Your task to perform on an android device: Open Amazon Image 0: 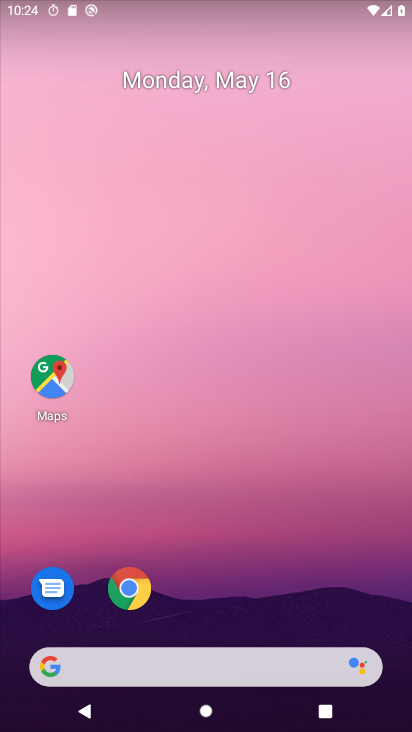
Step 0: click (133, 585)
Your task to perform on an android device: Open Amazon Image 1: 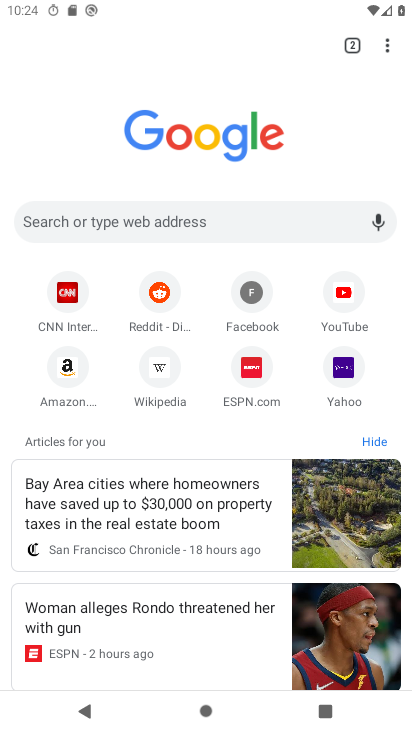
Step 1: click (59, 368)
Your task to perform on an android device: Open Amazon Image 2: 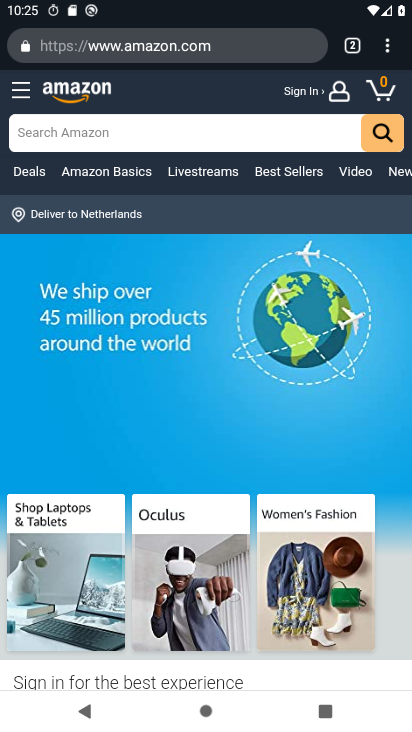
Step 2: task complete